Your task to perform on an android device: What's the weather? Image 0: 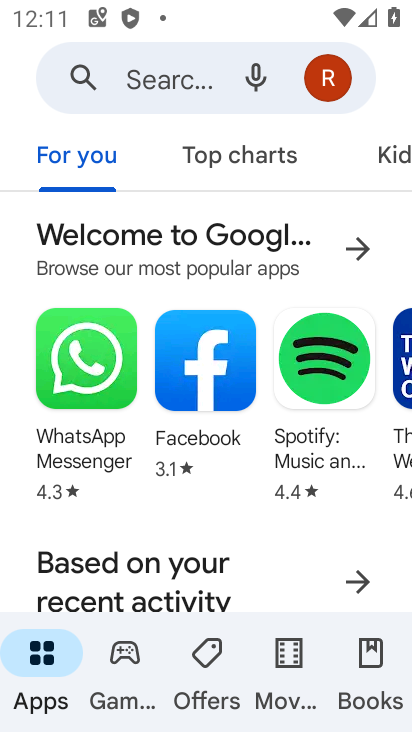
Step 0: press back button
Your task to perform on an android device: What's the weather? Image 1: 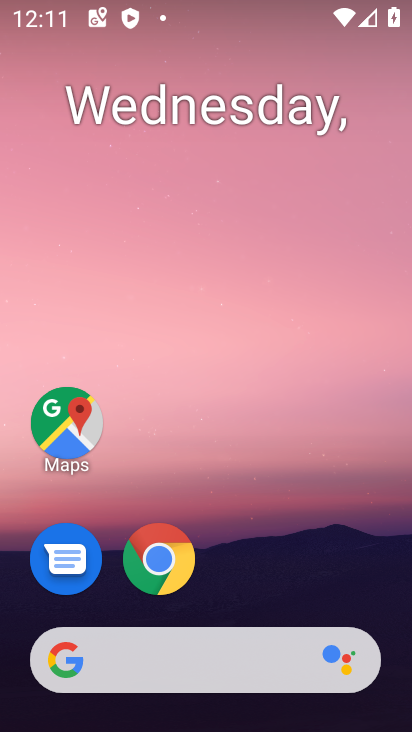
Step 1: click (181, 660)
Your task to perform on an android device: What's the weather? Image 2: 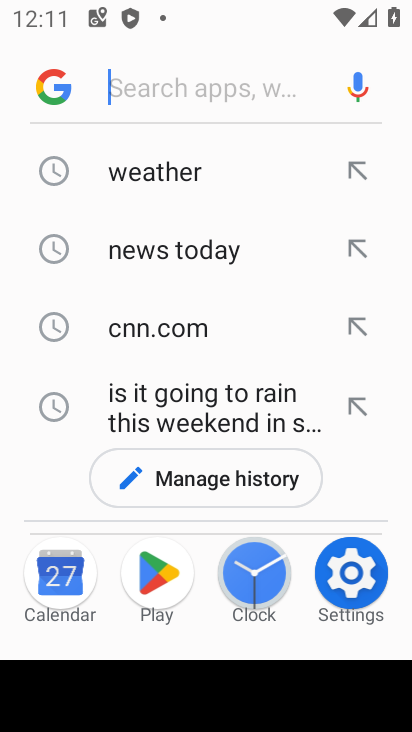
Step 2: click (162, 166)
Your task to perform on an android device: What's the weather? Image 3: 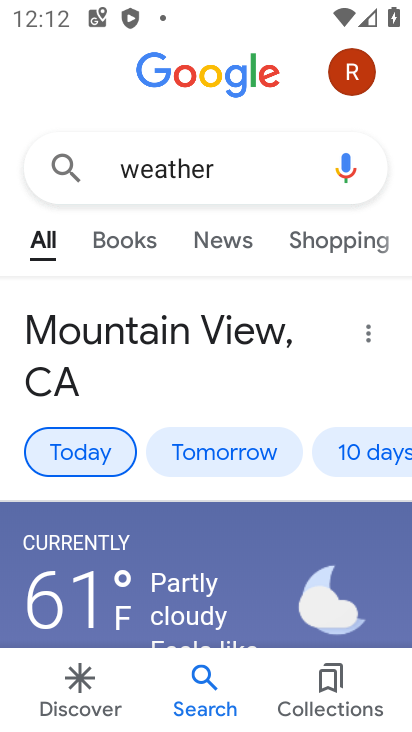
Step 3: task complete